Your task to perform on an android device: Go to Google Image 0: 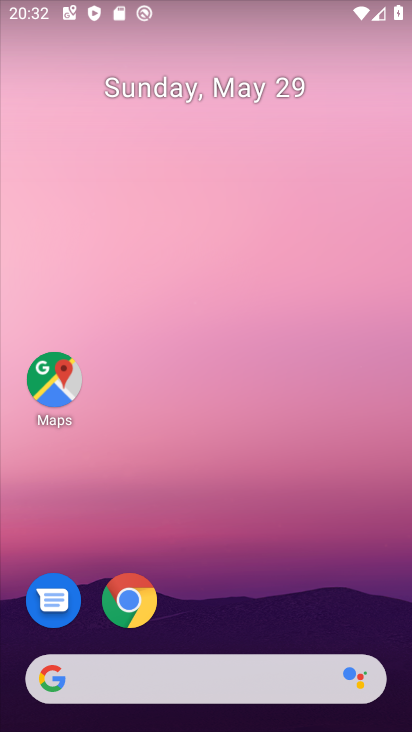
Step 0: drag from (256, 534) to (256, 132)
Your task to perform on an android device: Go to Google Image 1: 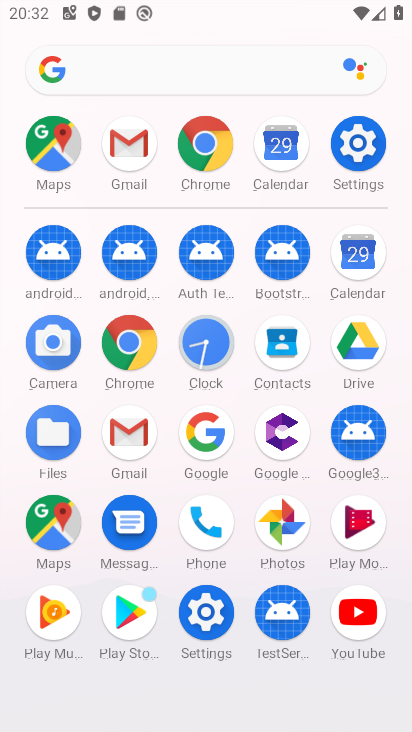
Step 1: click (220, 455)
Your task to perform on an android device: Go to Google Image 2: 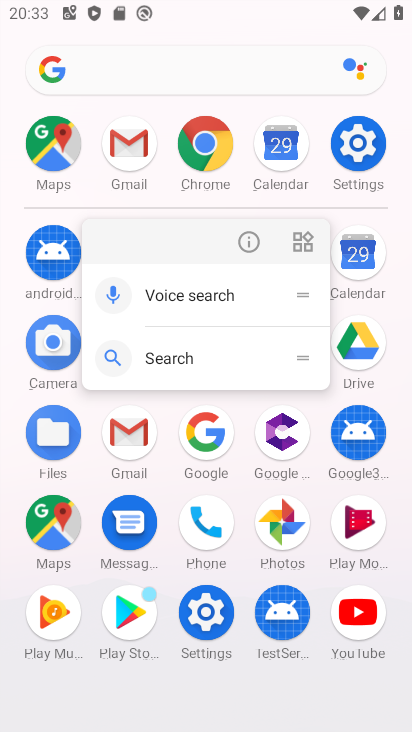
Step 2: click (199, 453)
Your task to perform on an android device: Go to Google Image 3: 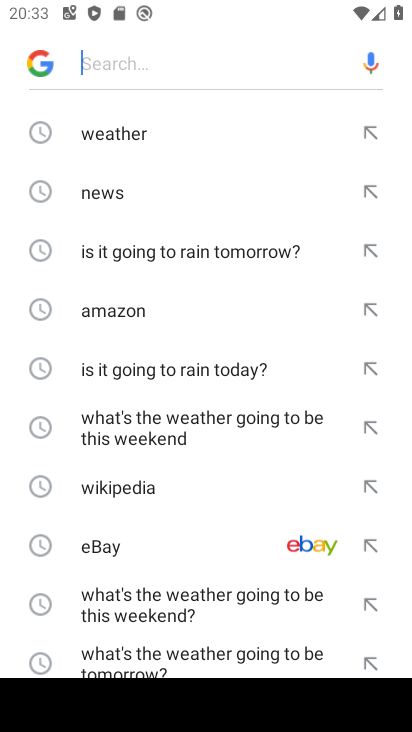
Step 3: task complete